Your task to perform on an android device: turn off location Image 0: 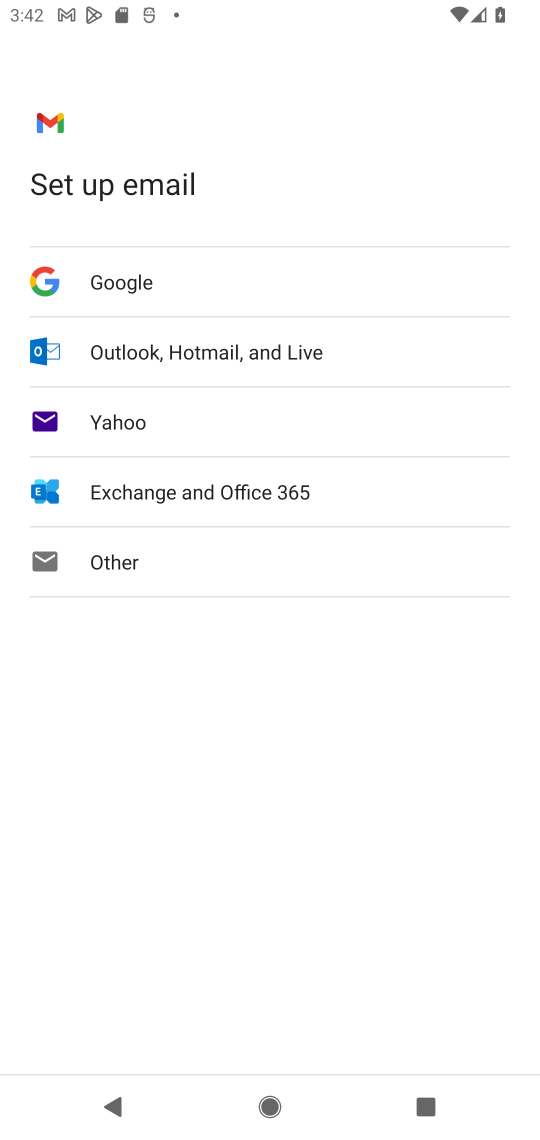
Step 0: press home button
Your task to perform on an android device: turn off location Image 1: 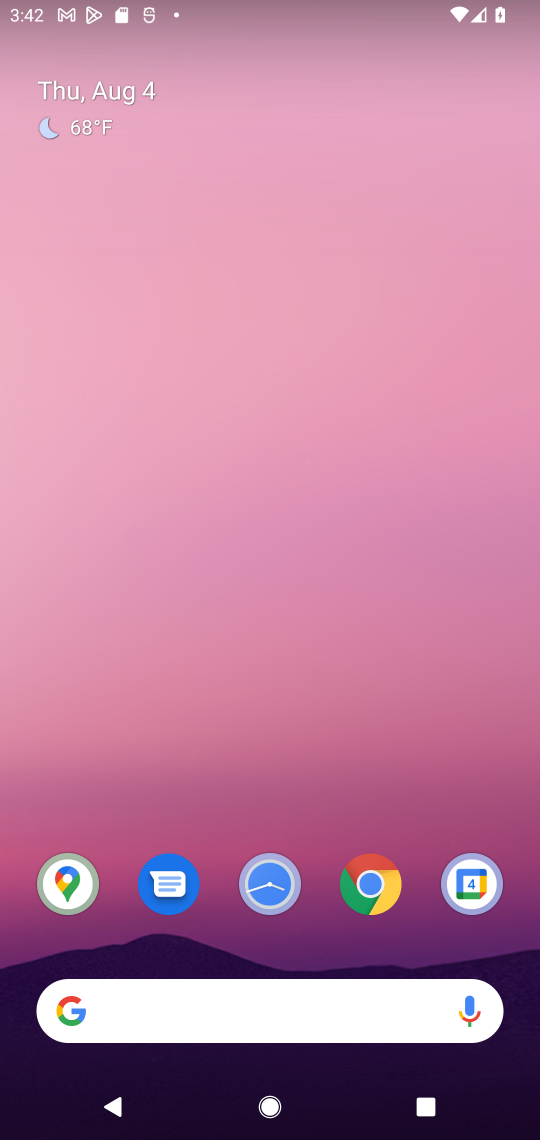
Step 1: drag from (308, 956) to (327, 215)
Your task to perform on an android device: turn off location Image 2: 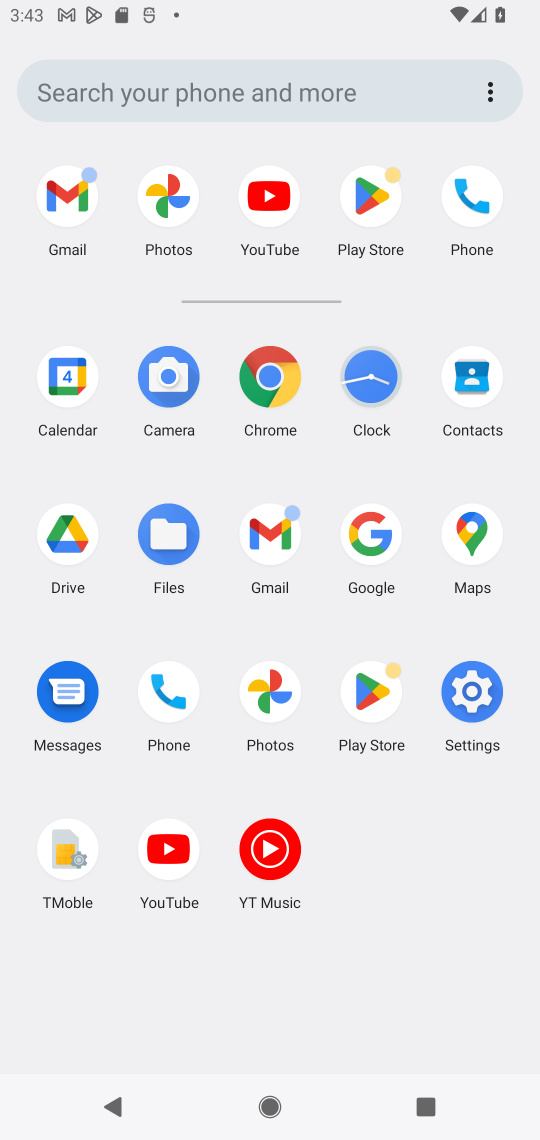
Step 2: click (474, 666)
Your task to perform on an android device: turn off location Image 3: 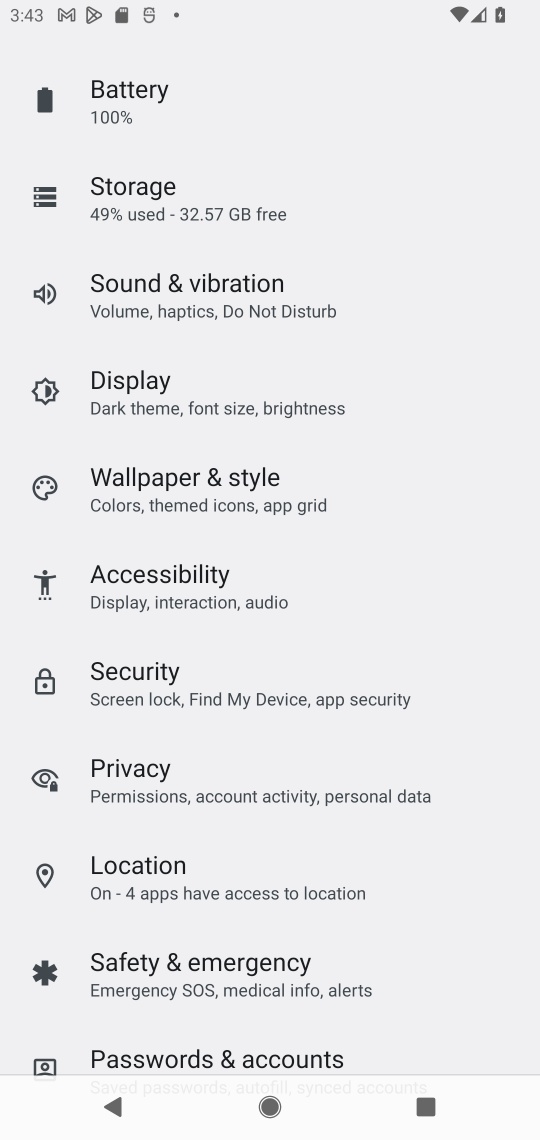
Step 3: click (195, 868)
Your task to perform on an android device: turn off location Image 4: 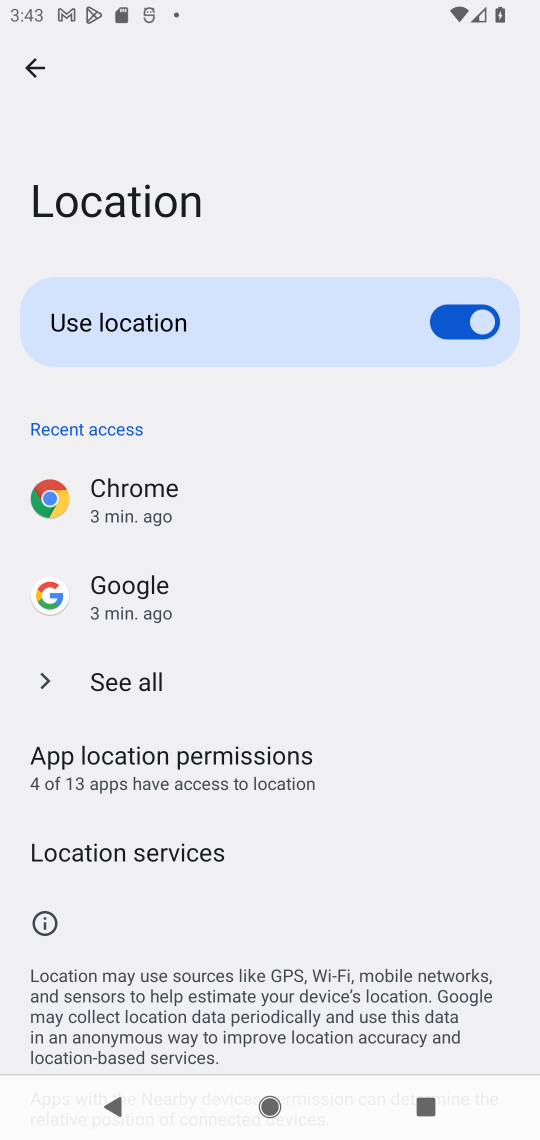
Step 4: task complete